Your task to perform on an android device: turn off notifications in google photos Image 0: 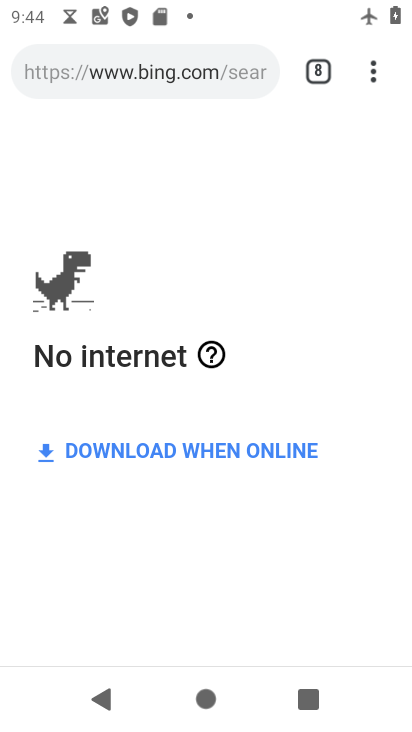
Step 0: press home button
Your task to perform on an android device: turn off notifications in google photos Image 1: 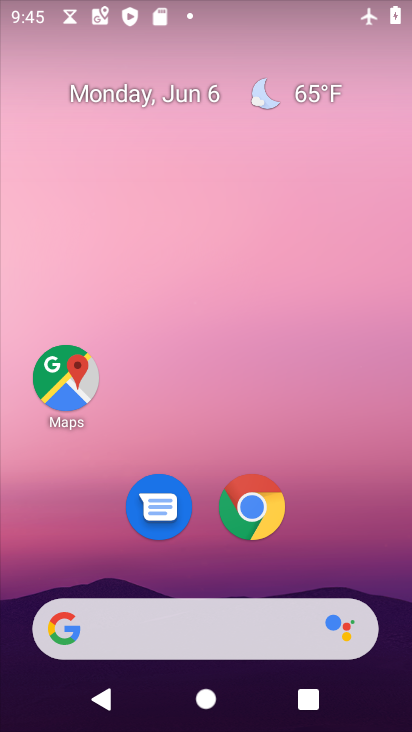
Step 1: drag from (300, 513) to (281, 263)
Your task to perform on an android device: turn off notifications in google photos Image 2: 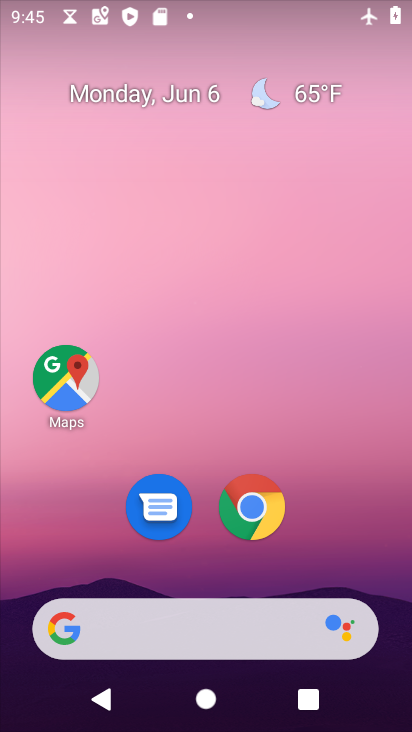
Step 2: drag from (254, 561) to (248, 201)
Your task to perform on an android device: turn off notifications in google photos Image 3: 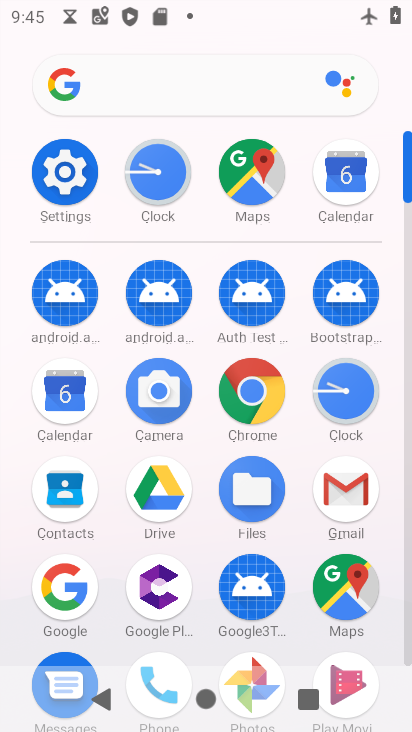
Step 3: drag from (208, 617) to (206, 342)
Your task to perform on an android device: turn off notifications in google photos Image 4: 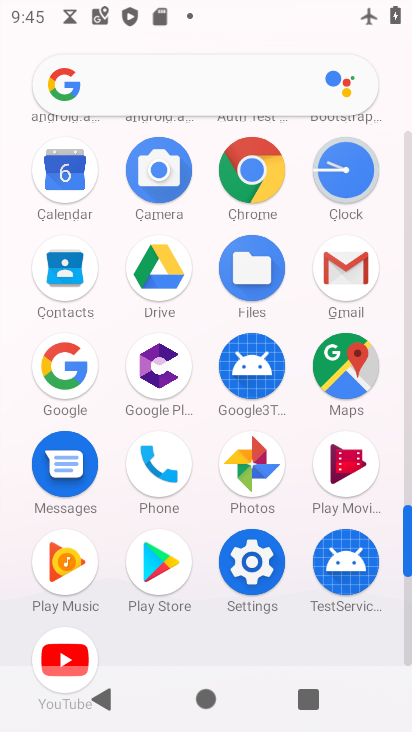
Step 4: click (251, 462)
Your task to perform on an android device: turn off notifications in google photos Image 5: 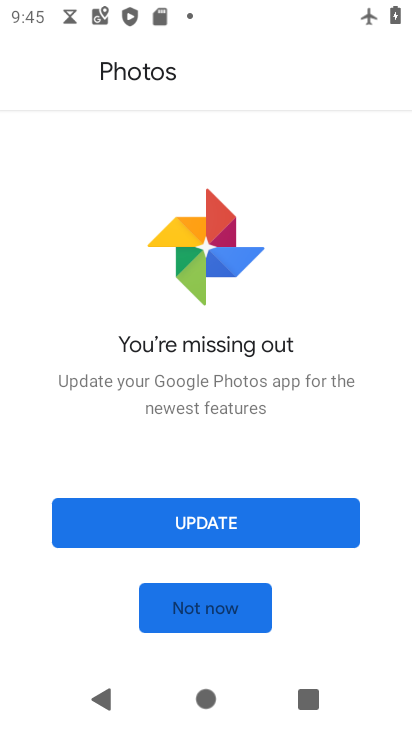
Step 5: click (200, 598)
Your task to perform on an android device: turn off notifications in google photos Image 6: 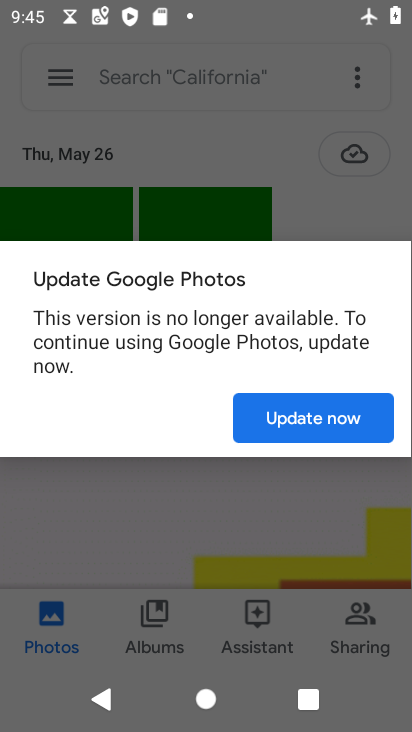
Step 6: click (285, 417)
Your task to perform on an android device: turn off notifications in google photos Image 7: 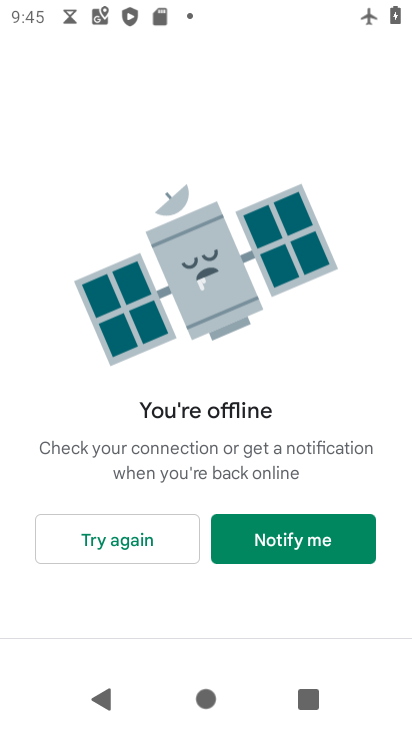
Step 7: press back button
Your task to perform on an android device: turn off notifications in google photos Image 8: 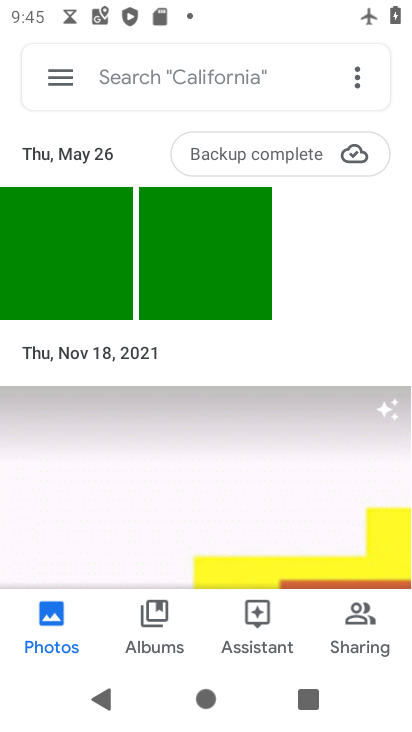
Step 8: click (68, 75)
Your task to perform on an android device: turn off notifications in google photos Image 9: 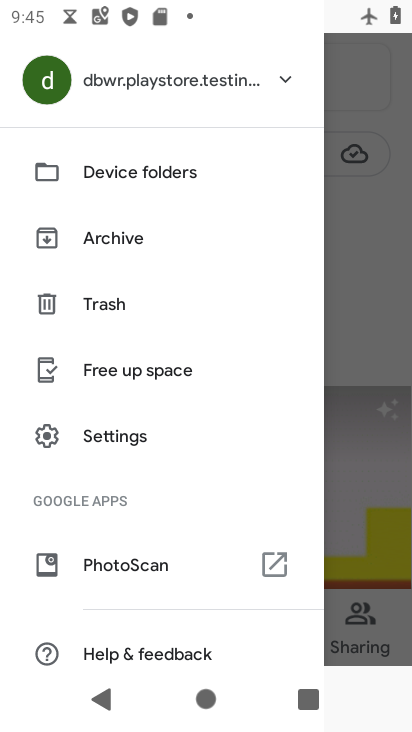
Step 9: click (135, 429)
Your task to perform on an android device: turn off notifications in google photos Image 10: 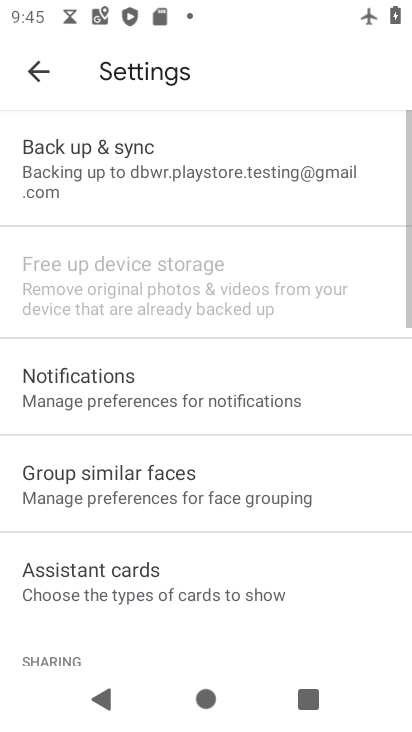
Step 10: click (139, 398)
Your task to perform on an android device: turn off notifications in google photos Image 11: 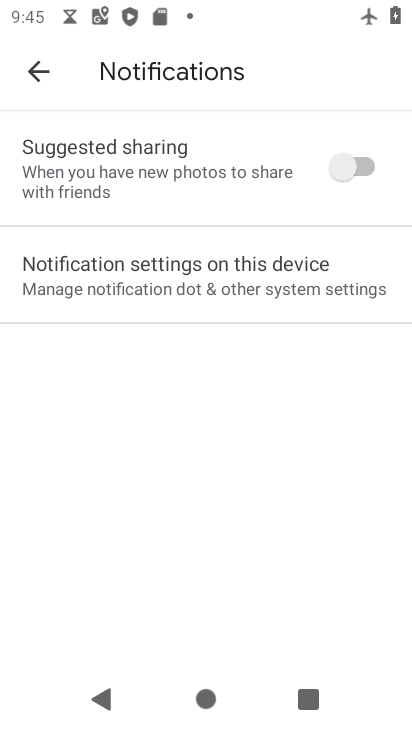
Step 11: click (113, 267)
Your task to perform on an android device: turn off notifications in google photos Image 12: 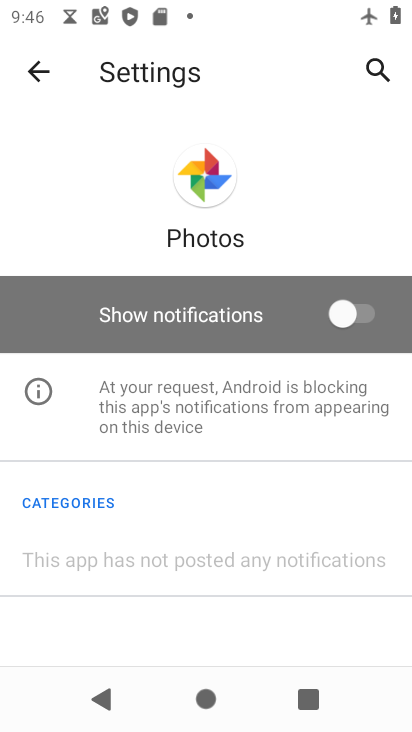
Step 12: task complete